Your task to perform on an android device: Open a new Chrome window Image 0: 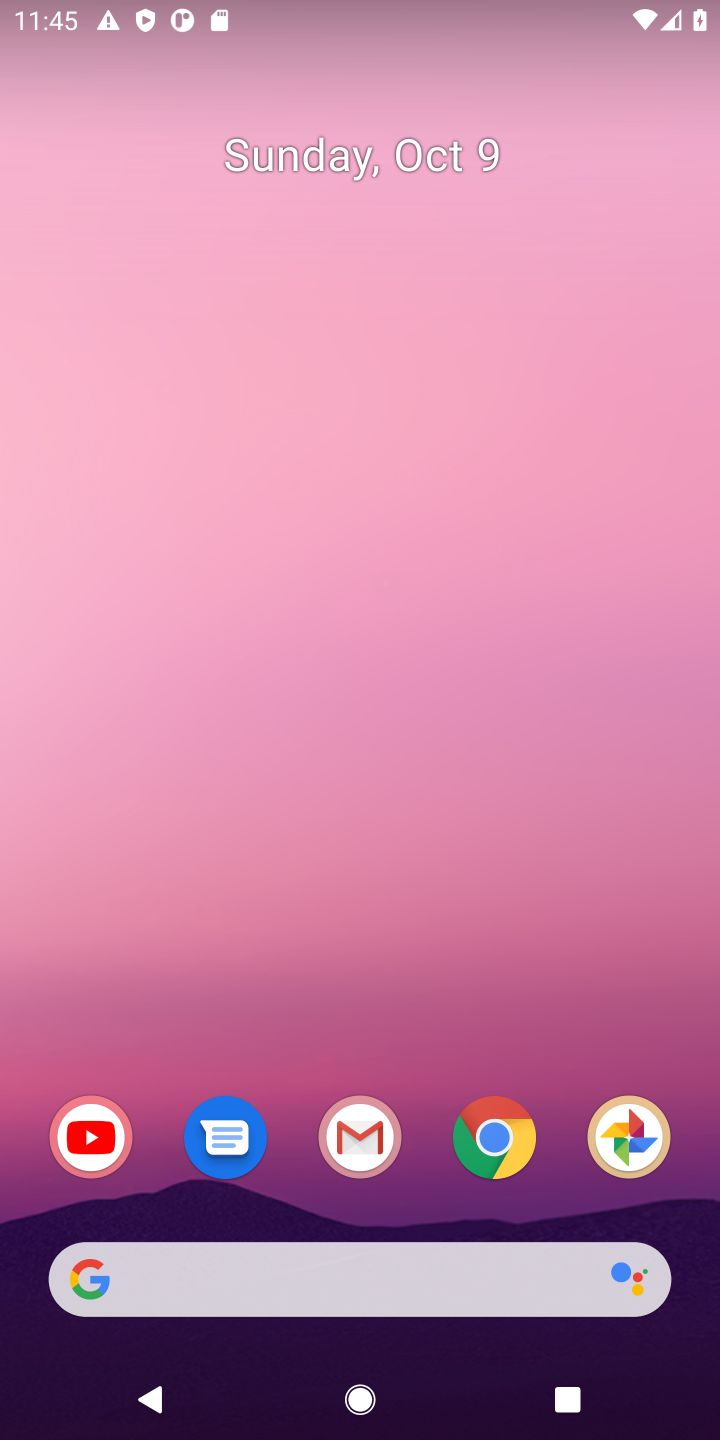
Step 0: drag from (453, 1040) to (587, 99)
Your task to perform on an android device: Open a new Chrome window Image 1: 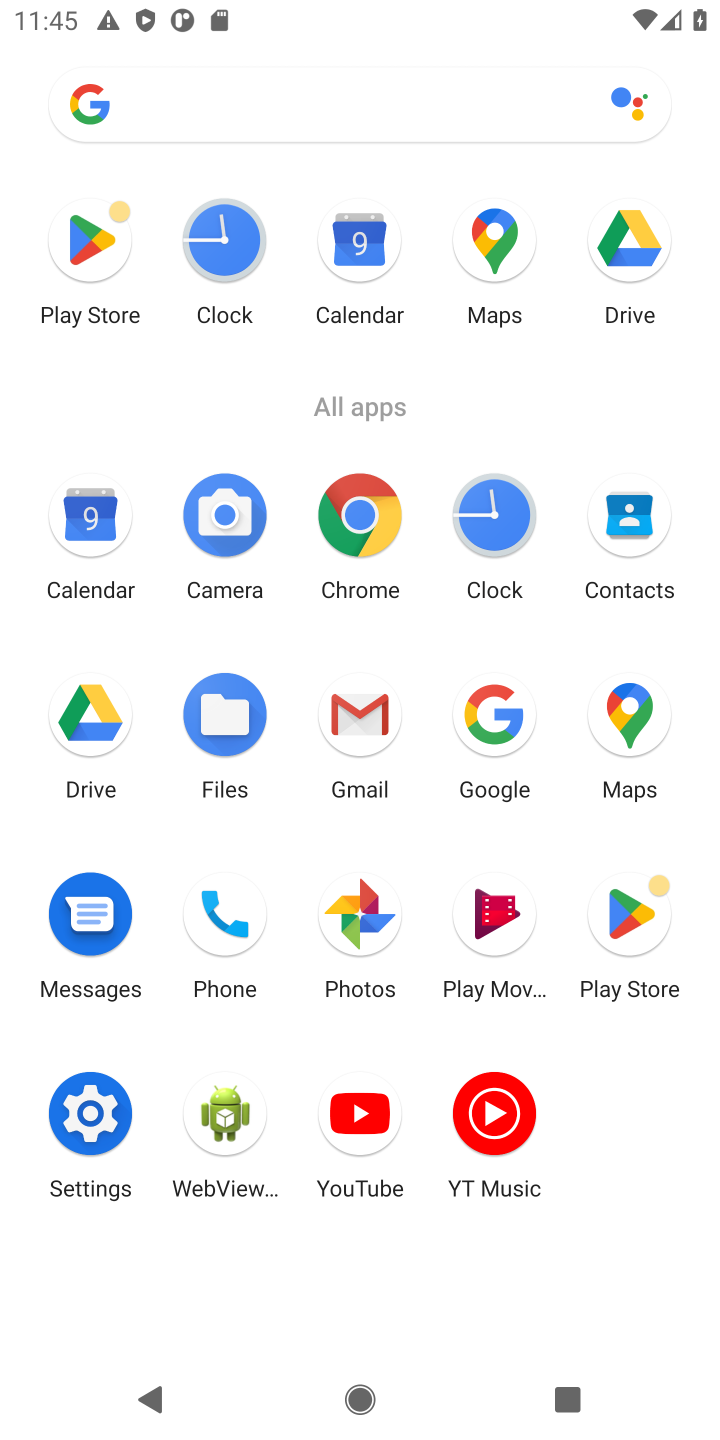
Step 1: click (345, 508)
Your task to perform on an android device: Open a new Chrome window Image 2: 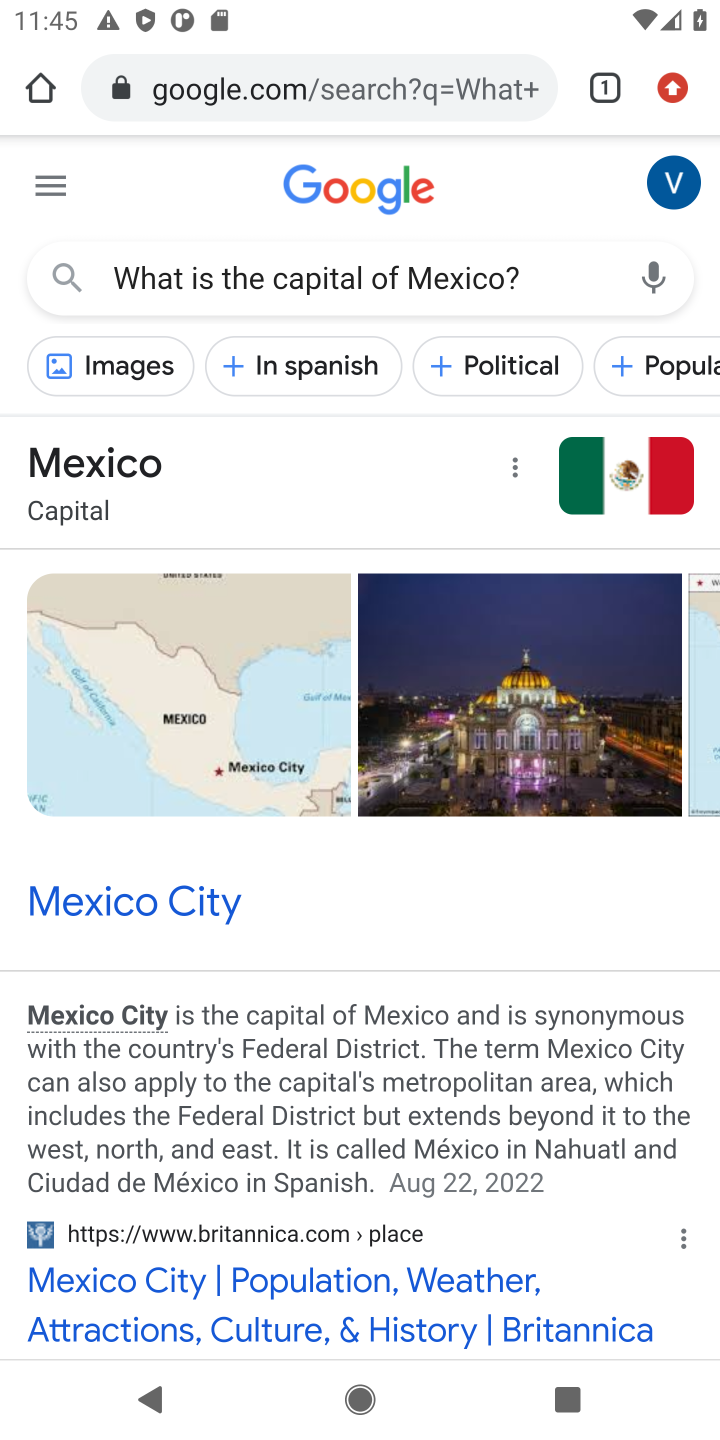
Step 2: click (323, 87)
Your task to perform on an android device: Open a new Chrome window Image 3: 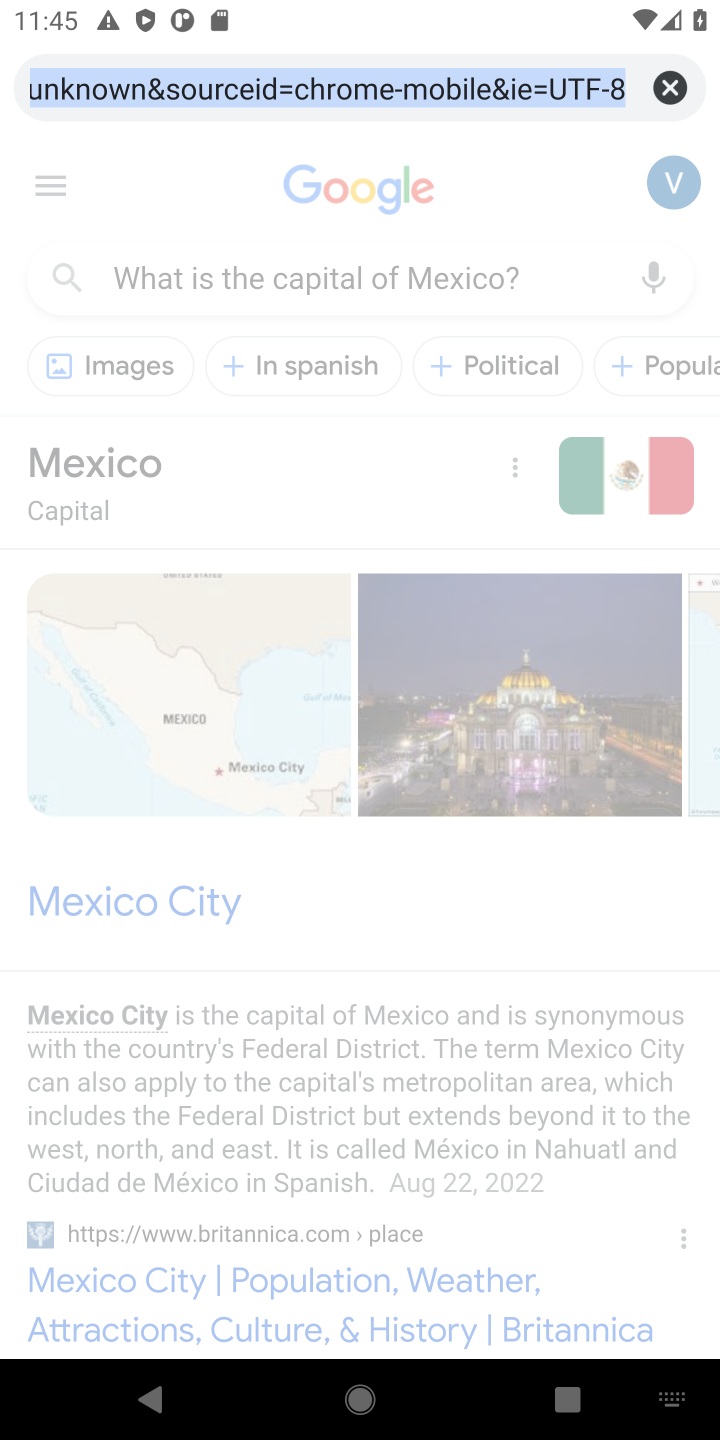
Step 3: click (661, 81)
Your task to perform on an android device: Open a new Chrome window Image 4: 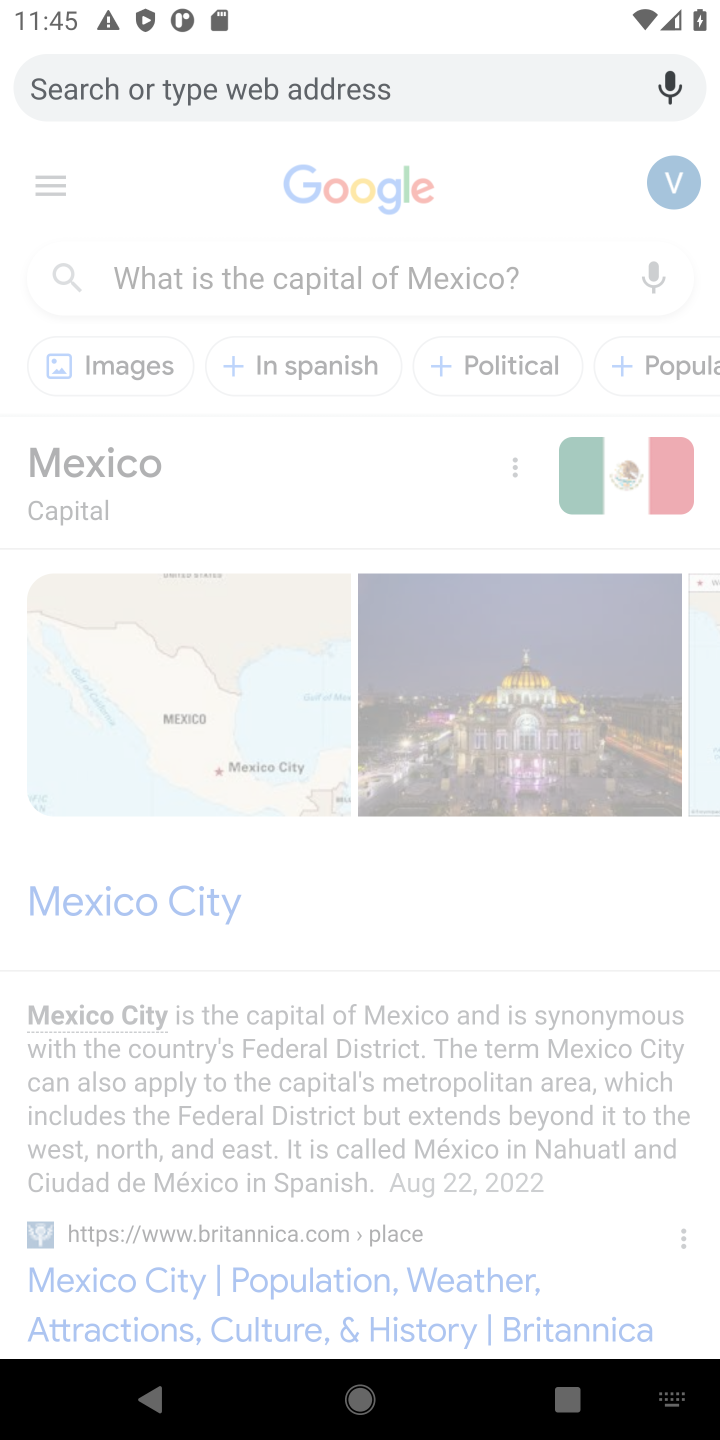
Step 4: type "Open a new Chrome window"
Your task to perform on an android device: Open a new Chrome window Image 5: 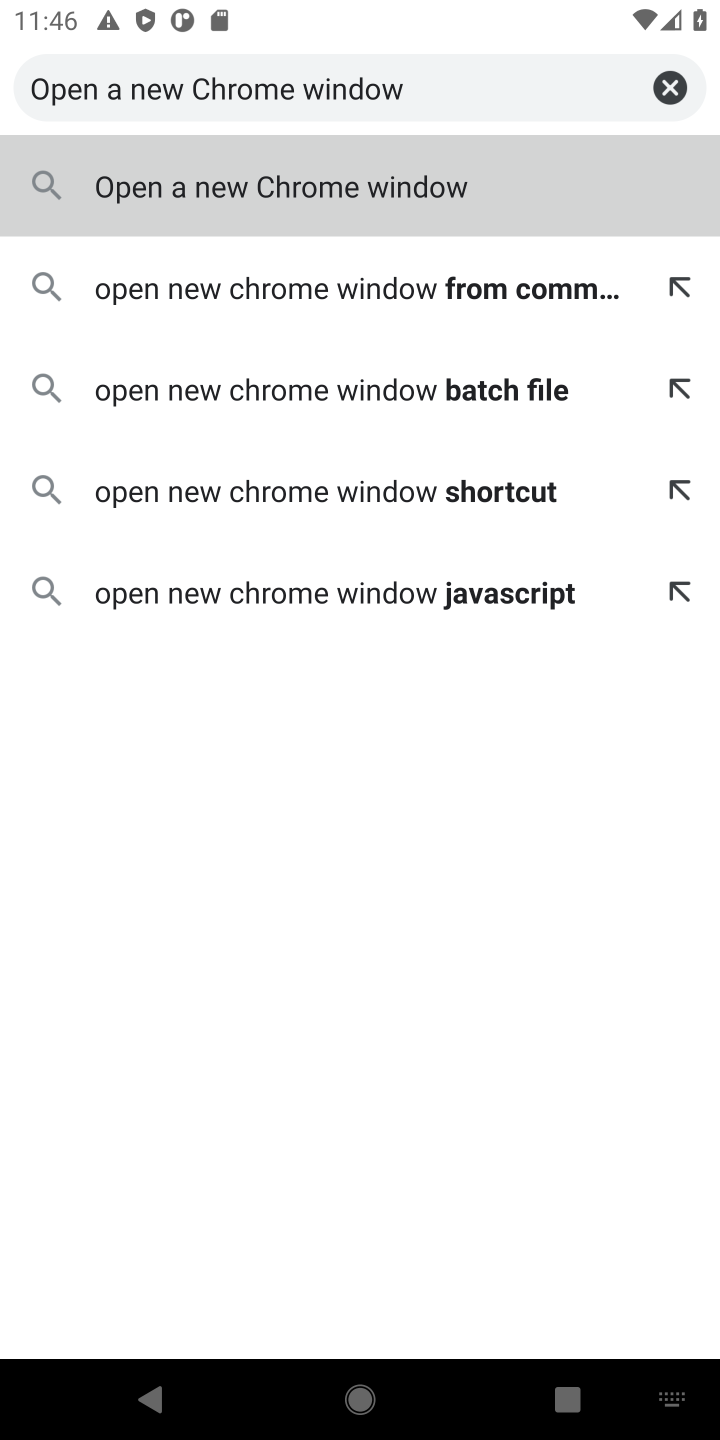
Step 5: click (361, 184)
Your task to perform on an android device: Open a new Chrome window Image 6: 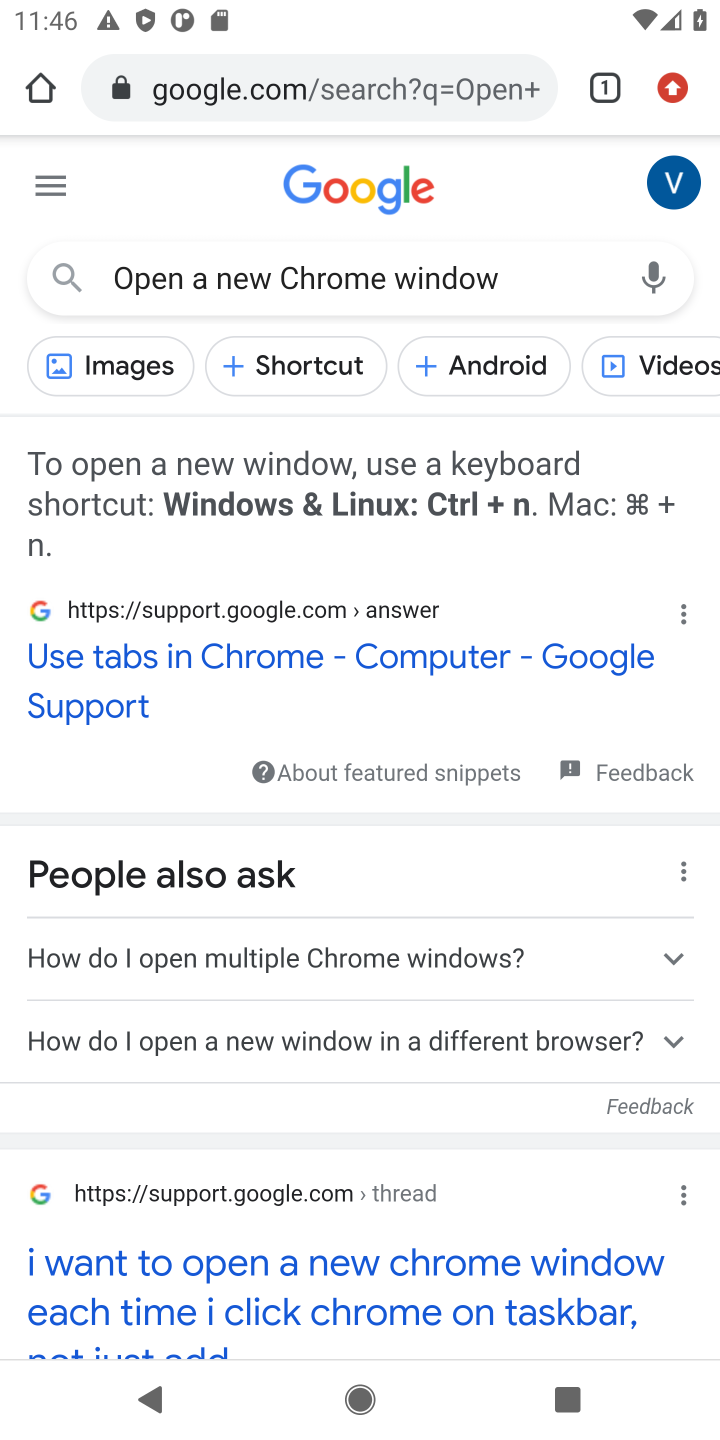
Step 6: task complete